Your task to perform on an android device: turn on javascript in the chrome app Image 0: 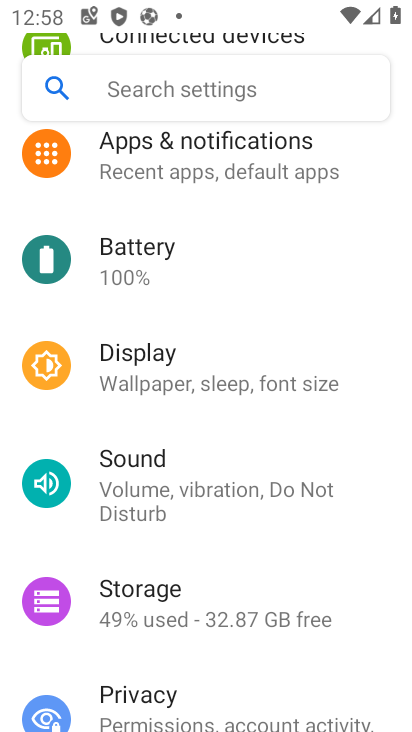
Step 0: drag from (210, 629) to (213, 28)
Your task to perform on an android device: turn on javascript in the chrome app Image 1: 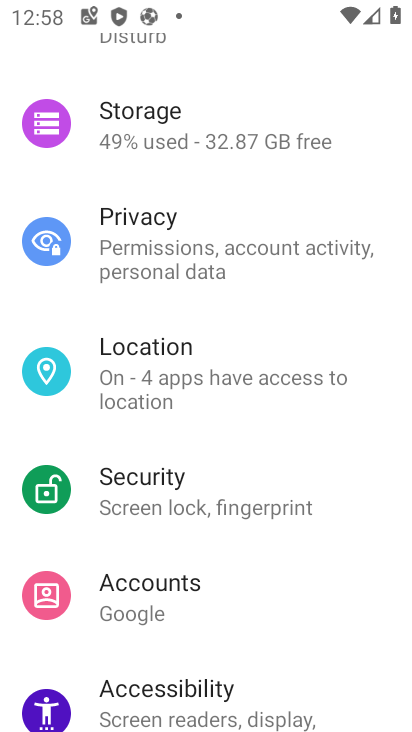
Step 1: press home button
Your task to perform on an android device: turn on javascript in the chrome app Image 2: 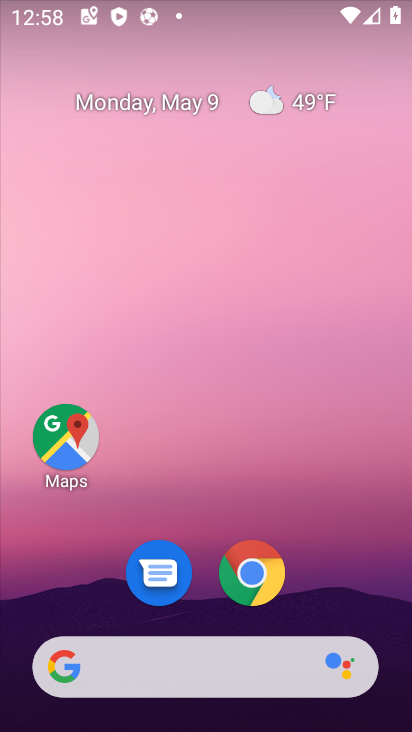
Step 2: click (256, 580)
Your task to perform on an android device: turn on javascript in the chrome app Image 3: 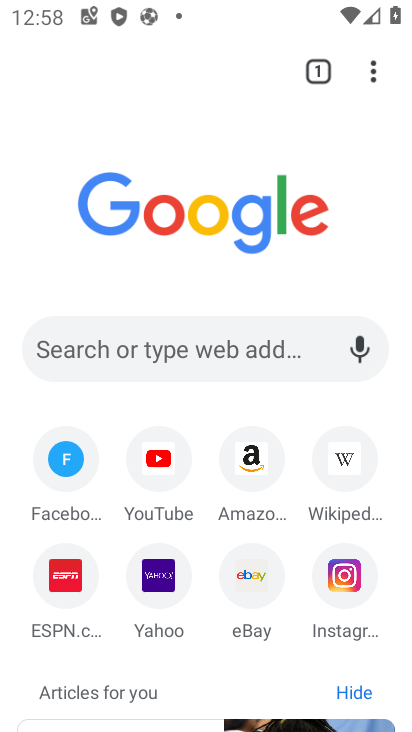
Step 3: click (374, 68)
Your task to perform on an android device: turn on javascript in the chrome app Image 4: 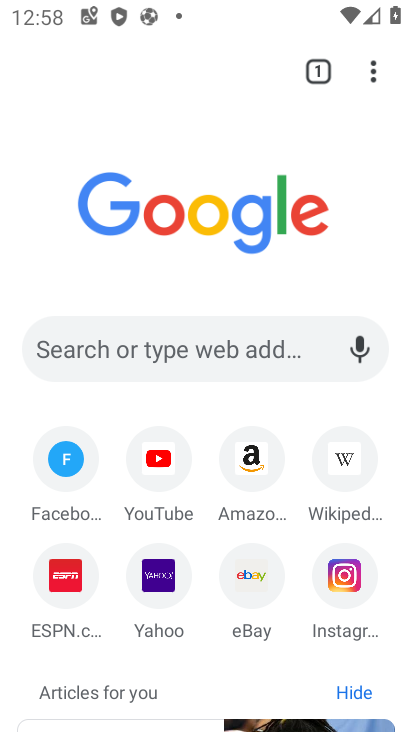
Step 4: click (368, 75)
Your task to perform on an android device: turn on javascript in the chrome app Image 5: 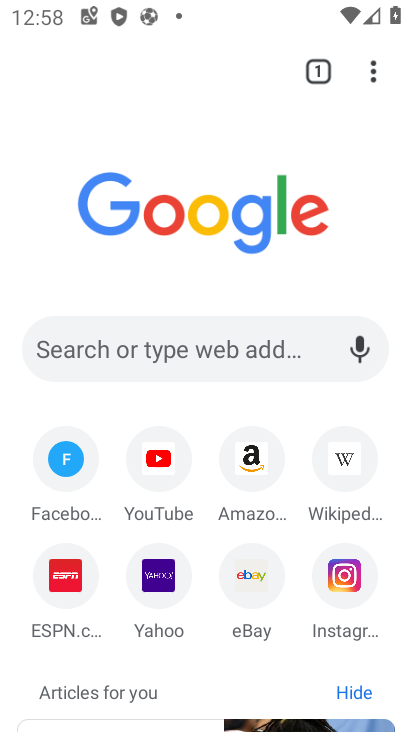
Step 5: click (375, 67)
Your task to perform on an android device: turn on javascript in the chrome app Image 6: 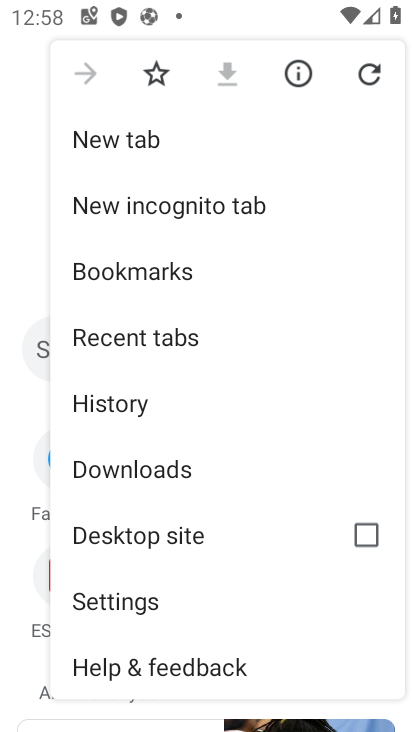
Step 6: click (156, 602)
Your task to perform on an android device: turn on javascript in the chrome app Image 7: 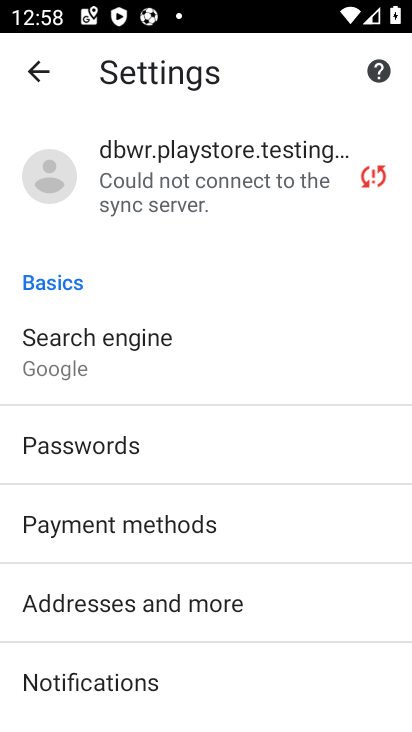
Step 7: drag from (255, 685) to (139, 23)
Your task to perform on an android device: turn on javascript in the chrome app Image 8: 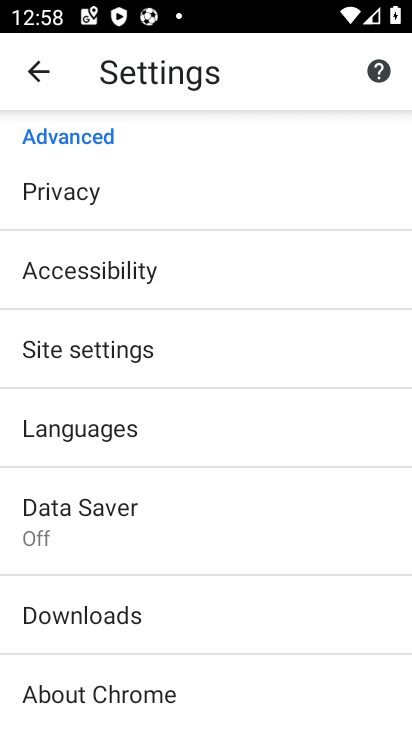
Step 8: click (117, 356)
Your task to perform on an android device: turn on javascript in the chrome app Image 9: 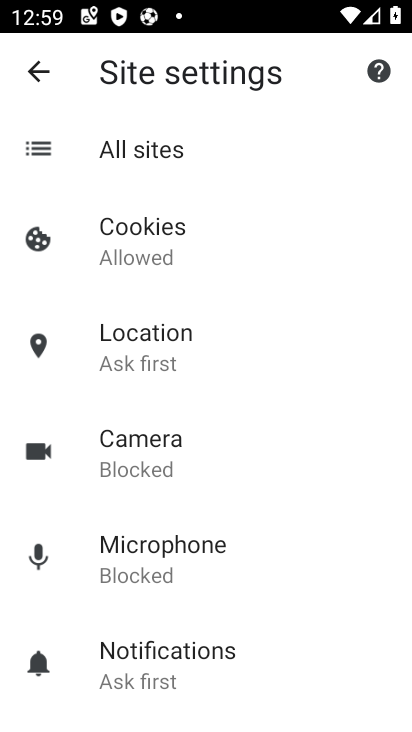
Step 9: drag from (207, 621) to (141, 288)
Your task to perform on an android device: turn on javascript in the chrome app Image 10: 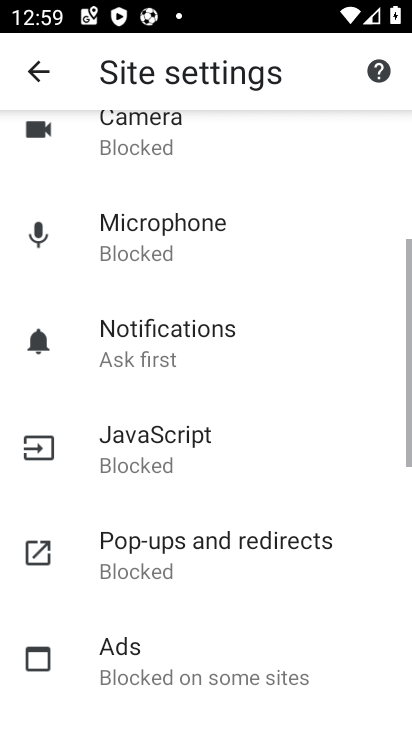
Step 10: click (151, 463)
Your task to perform on an android device: turn on javascript in the chrome app Image 11: 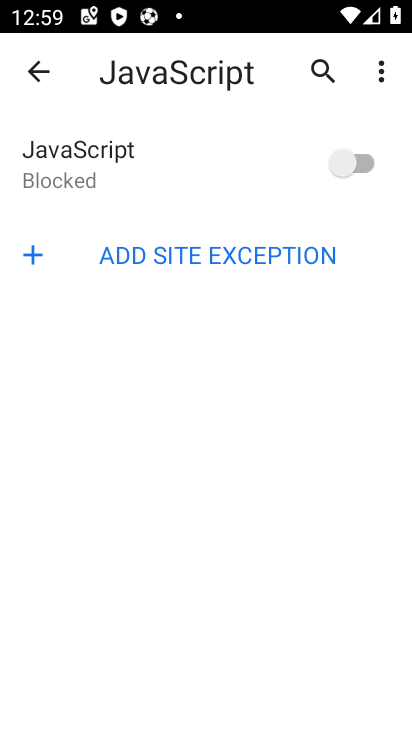
Step 11: click (360, 163)
Your task to perform on an android device: turn on javascript in the chrome app Image 12: 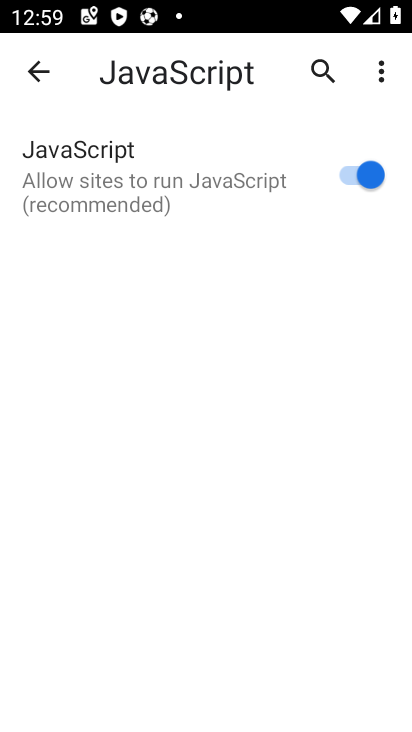
Step 12: task complete